Your task to perform on an android device: toggle notification dots Image 0: 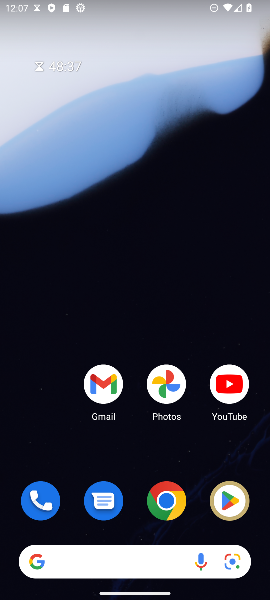
Step 0: drag from (151, 515) to (123, 198)
Your task to perform on an android device: toggle notification dots Image 1: 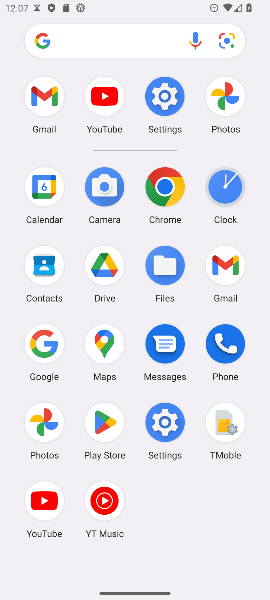
Step 1: click (165, 417)
Your task to perform on an android device: toggle notification dots Image 2: 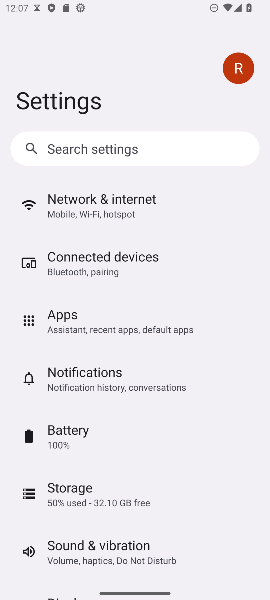
Step 2: click (99, 379)
Your task to perform on an android device: toggle notification dots Image 3: 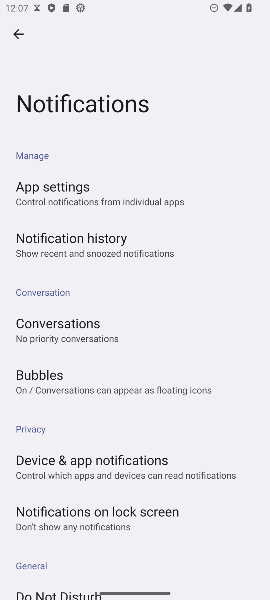
Step 3: click (134, 105)
Your task to perform on an android device: toggle notification dots Image 4: 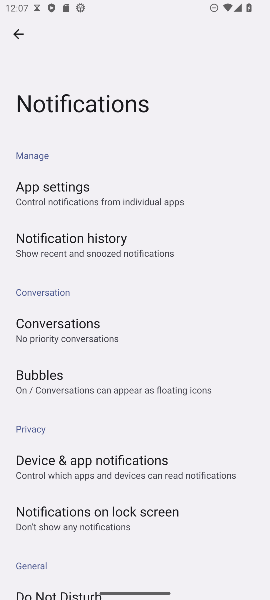
Step 4: drag from (131, 513) to (131, 73)
Your task to perform on an android device: toggle notification dots Image 5: 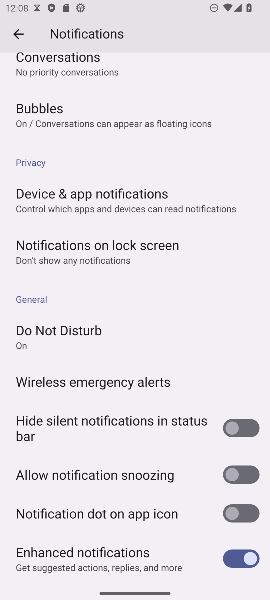
Step 5: click (253, 513)
Your task to perform on an android device: toggle notification dots Image 6: 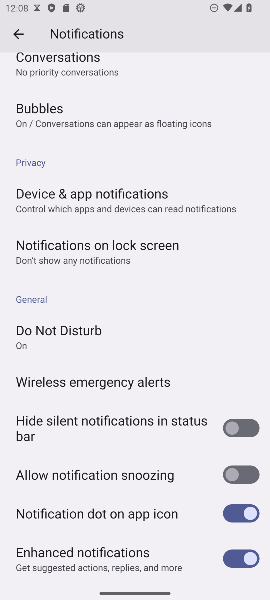
Step 6: task complete